Your task to perform on an android device: refresh tabs in the chrome app Image 0: 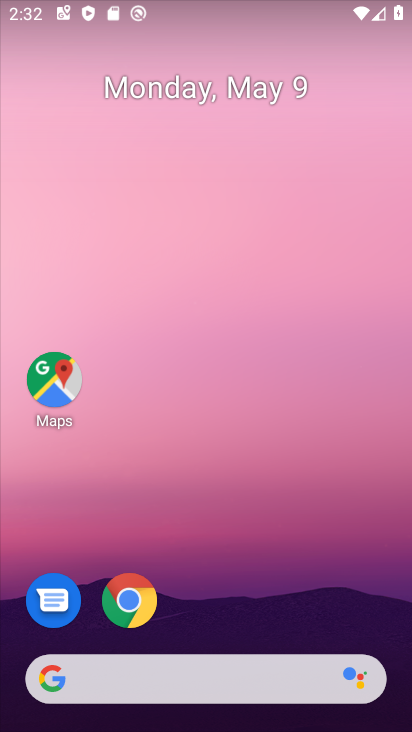
Step 0: click (129, 600)
Your task to perform on an android device: refresh tabs in the chrome app Image 1: 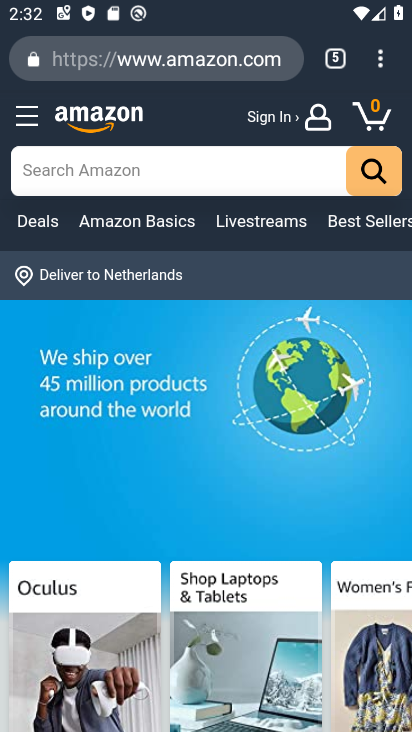
Step 1: click (386, 58)
Your task to perform on an android device: refresh tabs in the chrome app Image 2: 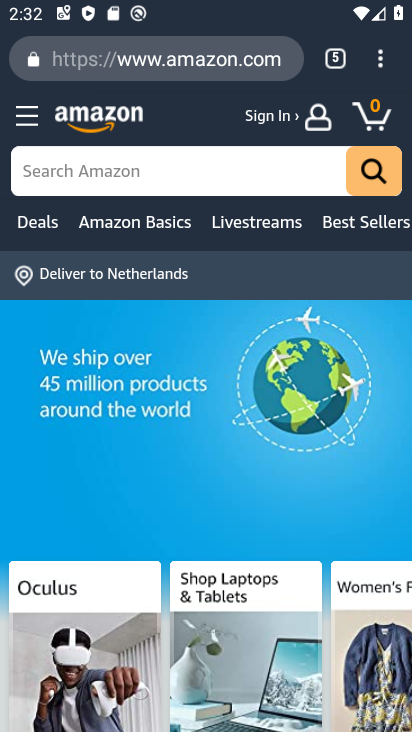
Step 2: task complete